Your task to perform on an android device: turn off notifications in google photos Image 0: 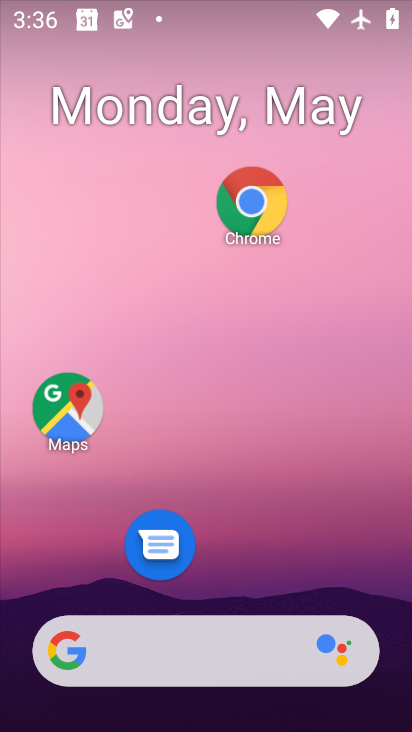
Step 0: drag from (227, 566) to (244, 169)
Your task to perform on an android device: turn off notifications in google photos Image 1: 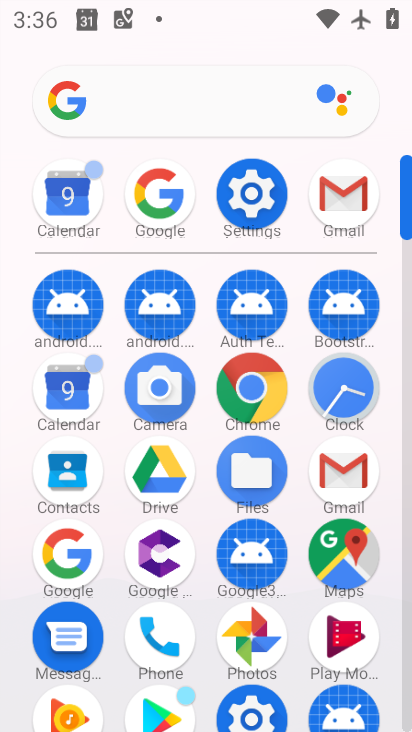
Step 1: click (249, 190)
Your task to perform on an android device: turn off notifications in google photos Image 2: 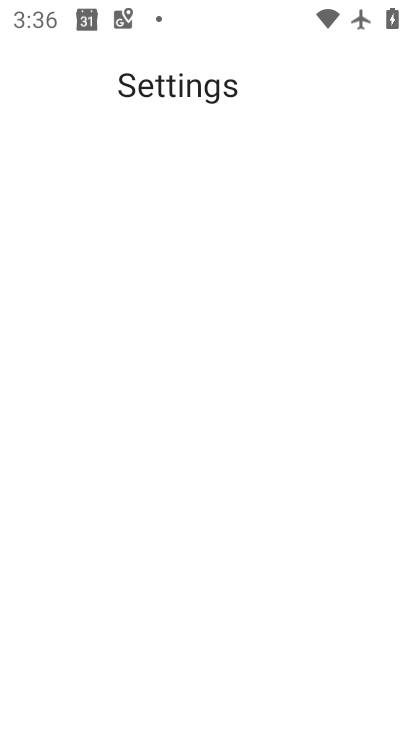
Step 2: press home button
Your task to perform on an android device: turn off notifications in google photos Image 3: 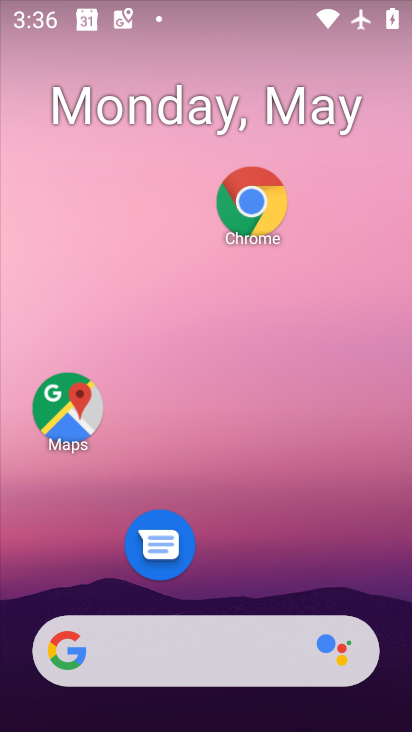
Step 3: drag from (240, 556) to (251, 127)
Your task to perform on an android device: turn off notifications in google photos Image 4: 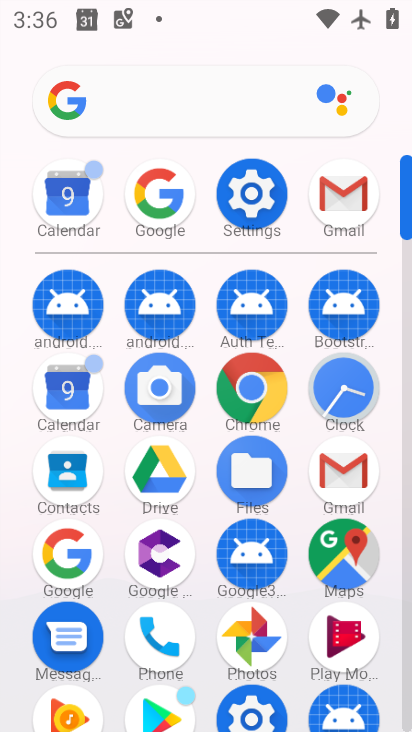
Step 4: click (249, 661)
Your task to perform on an android device: turn off notifications in google photos Image 5: 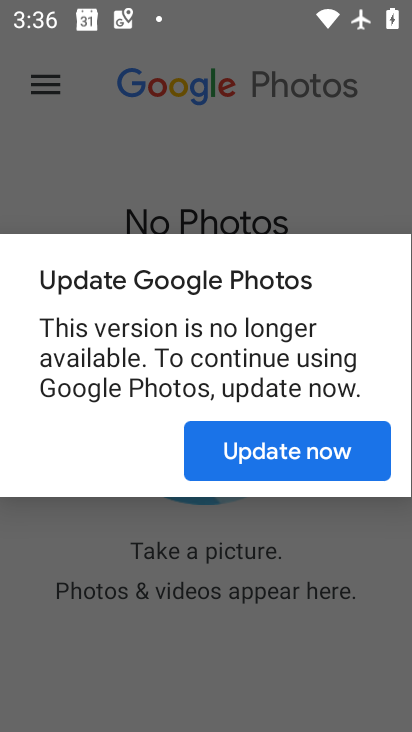
Step 5: click (277, 453)
Your task to perform on an android device: turn off notifications in google photos Image 6: 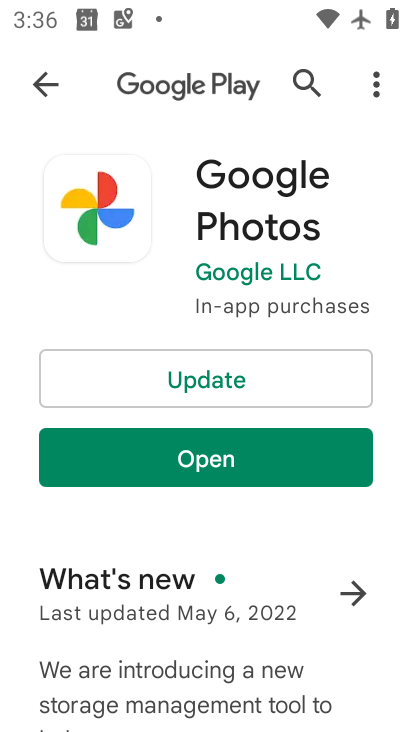
Step 6: click (209, 472)
Your task to perform on an android device: turn off notifications in google photos Image 7: 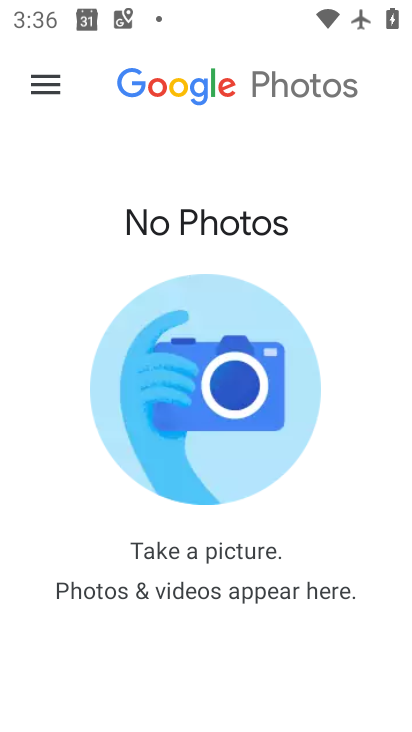
Step 7: click (59, 78)
Your task to perform on an android device: turn off notifications in google photos Image 8: 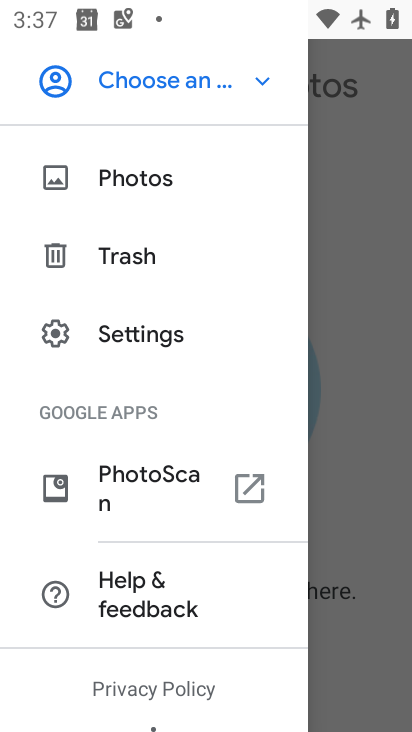
Step 8: click (125, 345)
Your task to perform on an android device: turn off notifications in google photos Image 9: 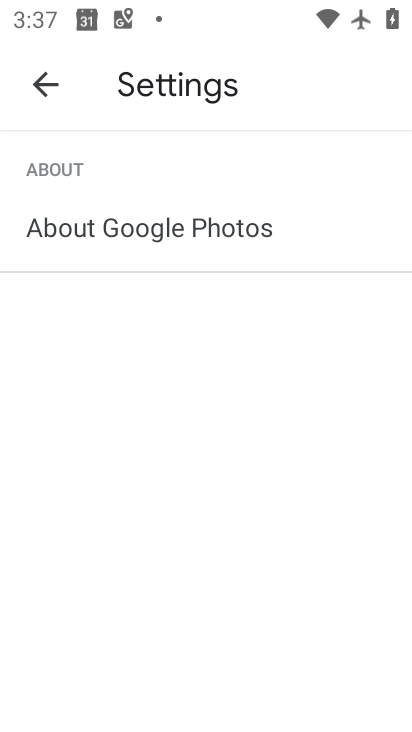
Step 9: click (41, 81)
Your task to perform on an android device: turn off notifications in google photos Image 10: 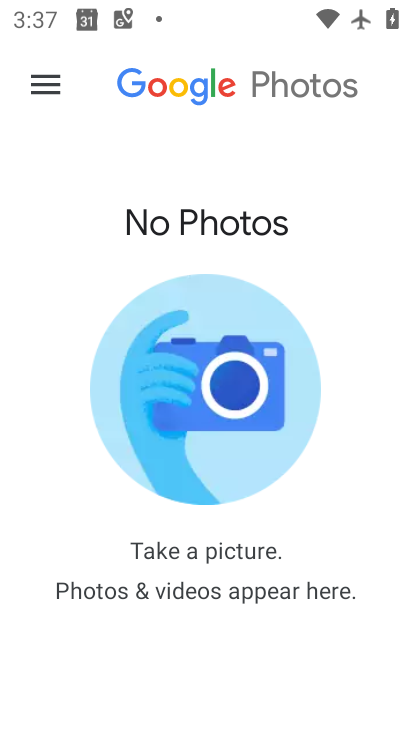
Step 10: click (32, 84)
Your task to perform on an android device: turn off notifications in google photos Image 11: 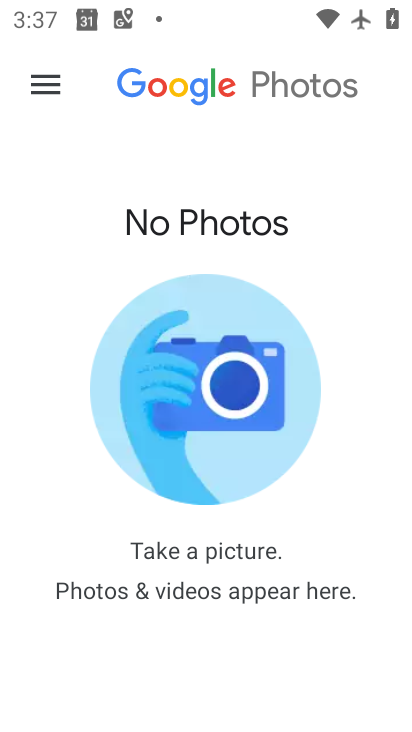
Step 11: click (60, 87)
Your task to perform on an android device: turn off notifications in google photos Image 12: 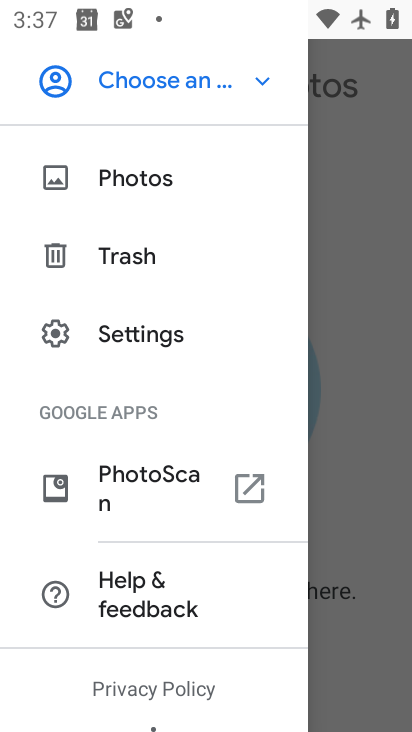
Step 12: drag from (109, 580) to (157, 263)
Your task to perform on an android device: turn off notifications in google photos Image 13: 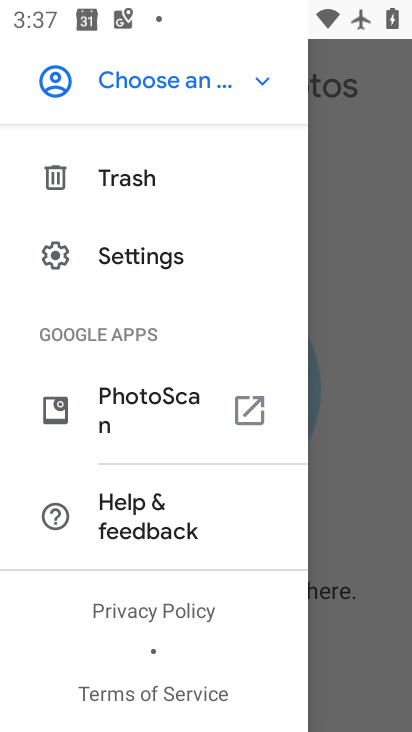
Step 13: click (148, 246)
Your task to perform on an android device: turn off notifications in google photos Image 14: 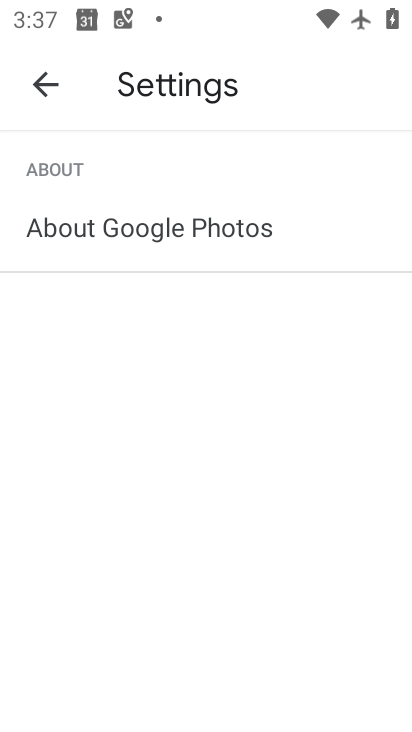
Step 14: click (148, 246)
Your task to perform on an android device: turn off notifications in google photos Image 15: 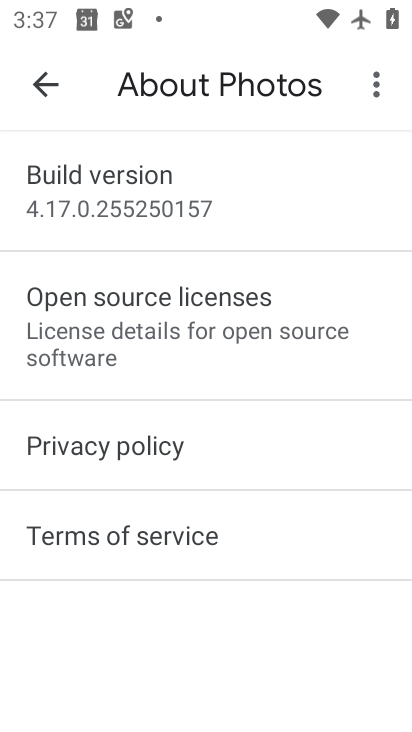
Step 15: task complete